Your task to perform on an android device: empty trash in the gmail app Image 0: 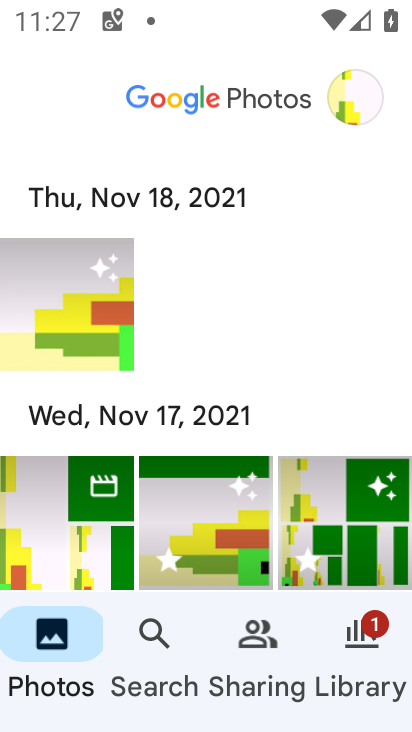
Step 0: press home button
Your task to perform on an android device: empty trash in the gmail app Image 1: 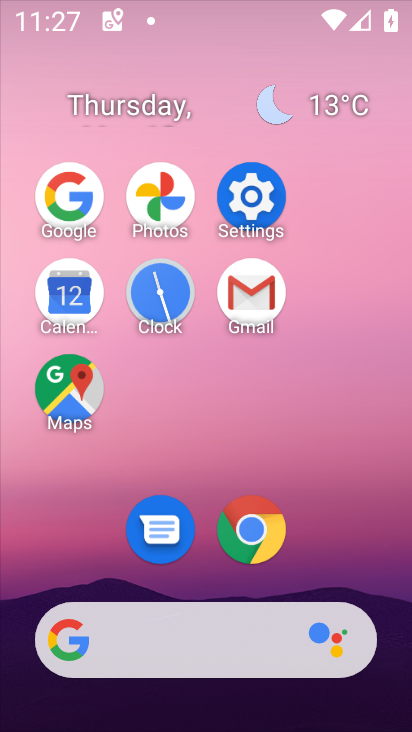
Step 1: click (237, 314)
Your task to perform on an android device: empty trash in the gmail app Image 2: 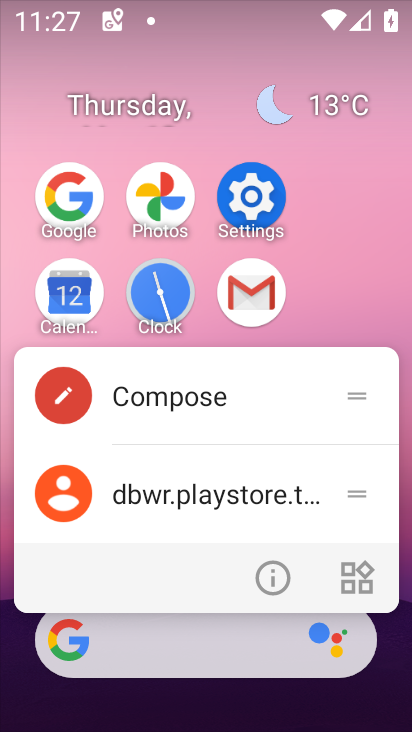
Step 2: click (237, 314)
Your task to perform on an android device: empty trash in the gmail app Image 3: 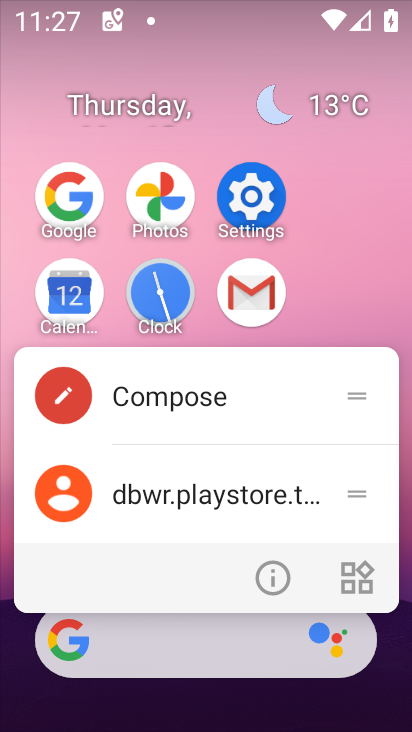
Step 3: click (259, 286)
Your task to perform on an android device: empty trash in the gmail app Image 4: 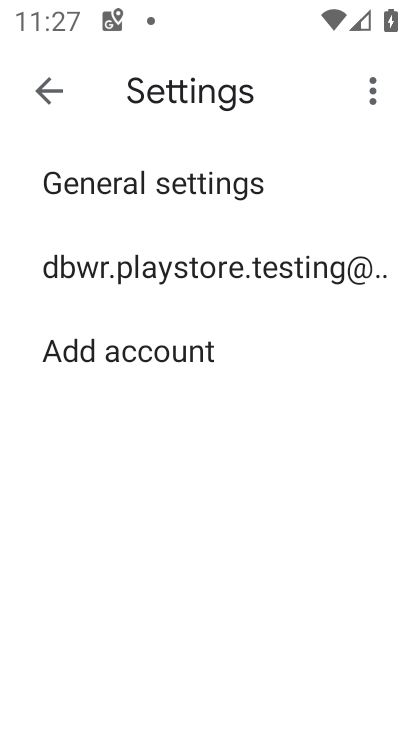
Step 4: click (123, 267)
Your task to perform on an android device: empty trash in the gmail app Image 5: 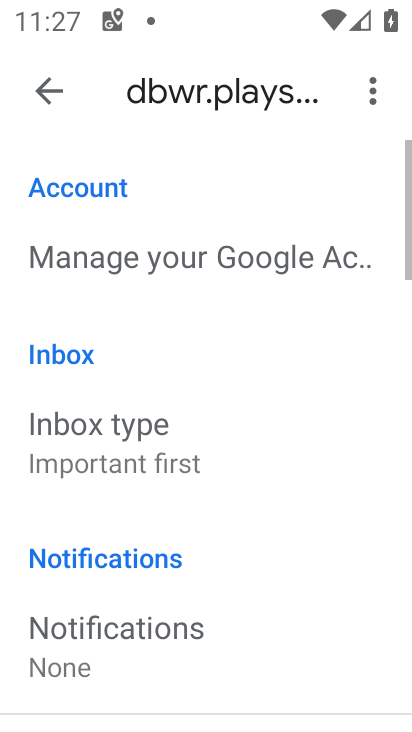
Step 5: drag from (123, 267) to (146, 626)
Your task to perform on an android device: empty trash in the gmail app Image 6: 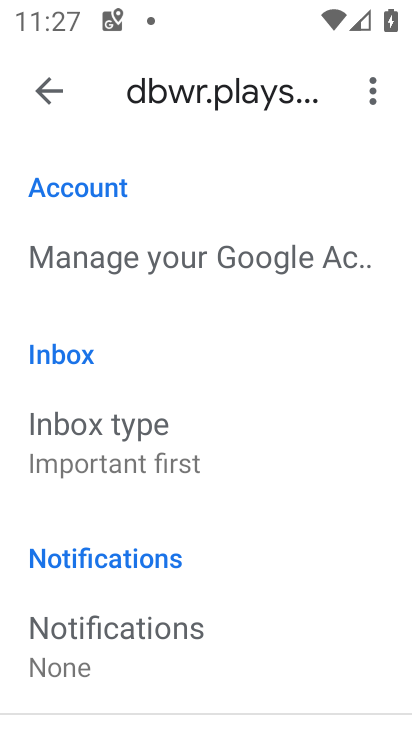
Step 6: drag from (184, 562) to (255, 233)
Your task to perform on an android device: empty trash in the gmail app Image 7: 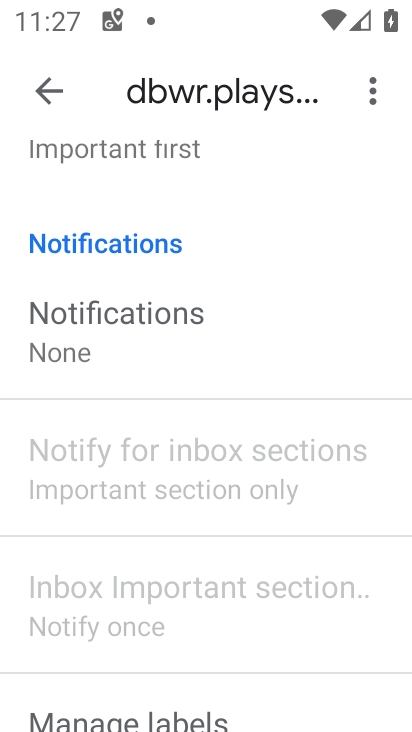
Step 7: drag from (254, 567) to (291, 160)
Your task to perform on an android device: empty trash in the gmail app Image 8: 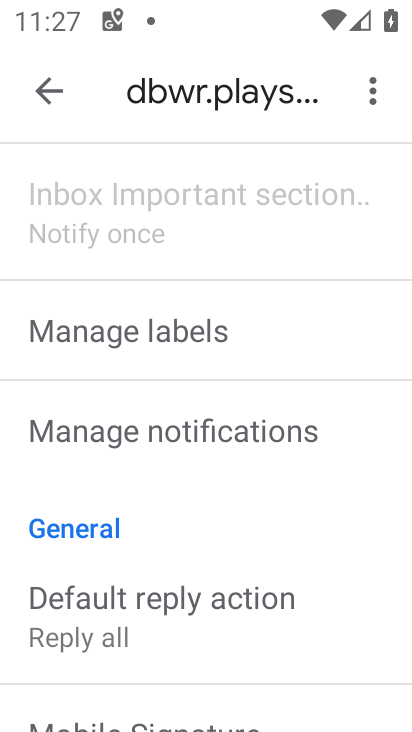
Step 8: drag from (267, 653) to (299, 140)
Your task to perform on an android device: empty trash in the gmail app Image 9: 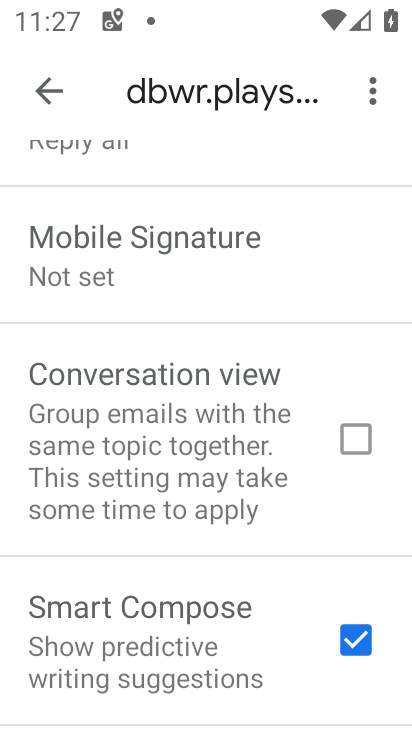
Step 9: drag from (268, 631) to (267, 167)
Your task to perform on an android device: empty trash in the gmail app Image 10: 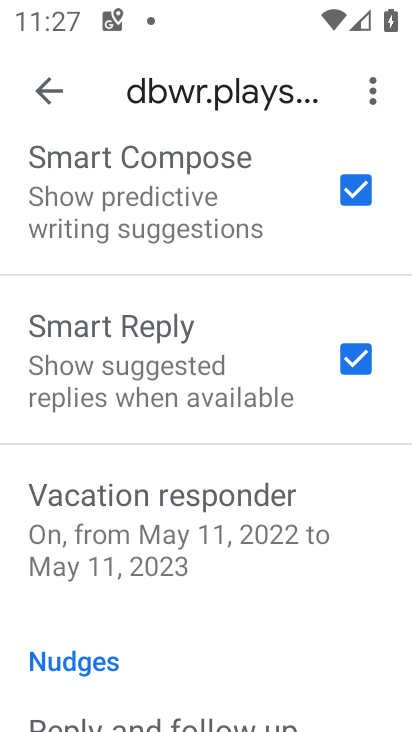
Step 10: drag from (232, 614) to (234, 150)
Your task to perform on an android device: empty trash in the gmail app Image 11: 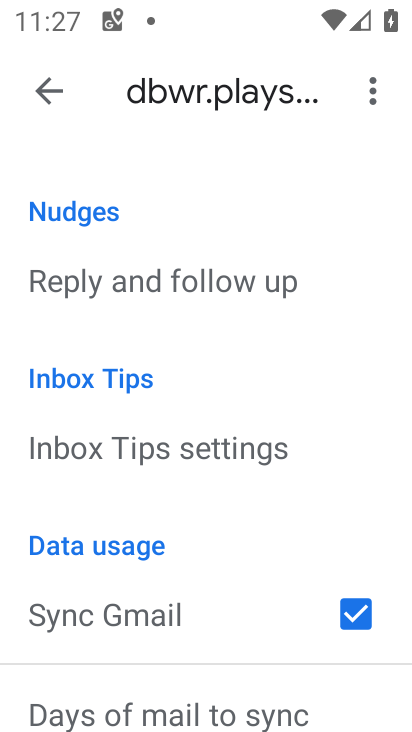
Step 11: drag from (237, 601) to (245, 165)
Your task to perform on an android device: empty trash in the gmail app Image 12: 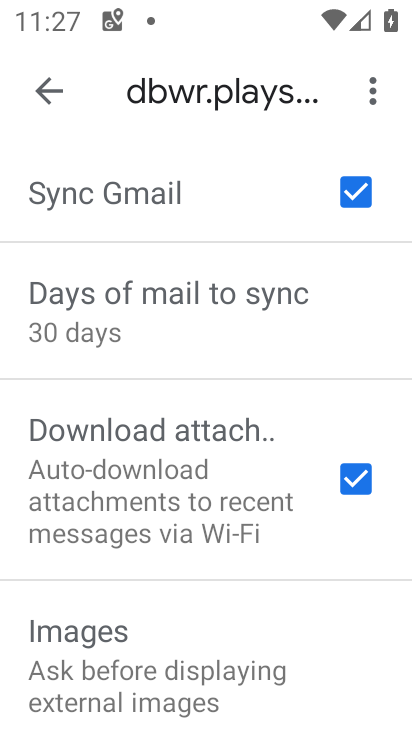
Step 12: drag from (224, 662) to (252, 226)
Your task to perform on an android device: empty trash in the gmail app Image 13: 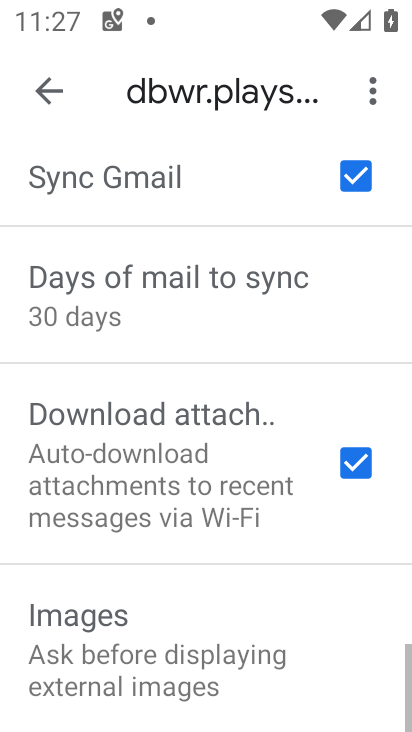
Step 13: click (43, 99)
Your task to perform on an android device: empty trash in the gmail app Image 14: 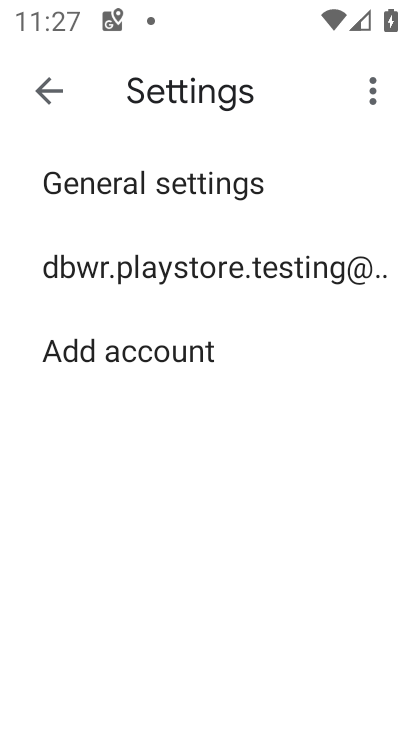
Step 14: click (43, 99)
Your task to perform on an android device: empty trash in the gmail app Image 15: 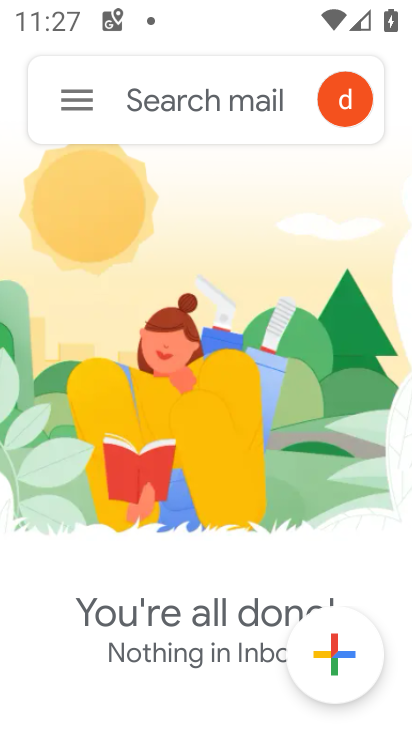
Step 15: click (100, 109)
Your task to perform on an android device: empty trash in the gmail app Image 16: 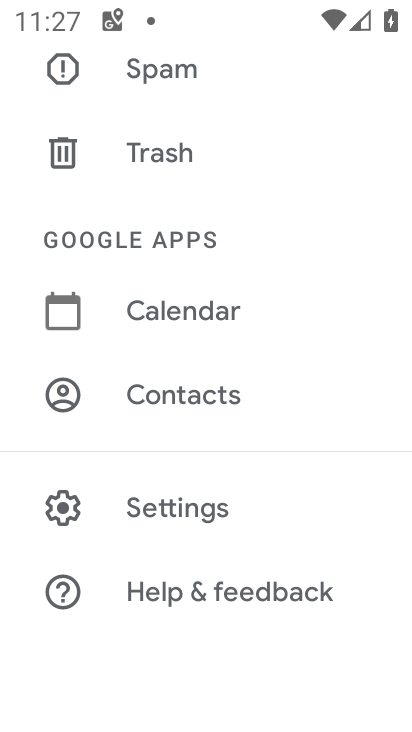
Step 16: click (210, 173)
Your task to perform on an android device: empty trash in the gmail app Image 17: 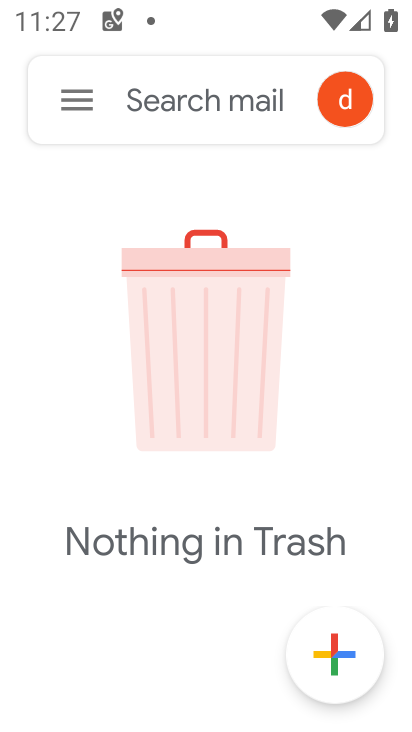
Step 17: task complete